Your task to perform on an android device: Show me productivity apps on the Play Store Image 0: 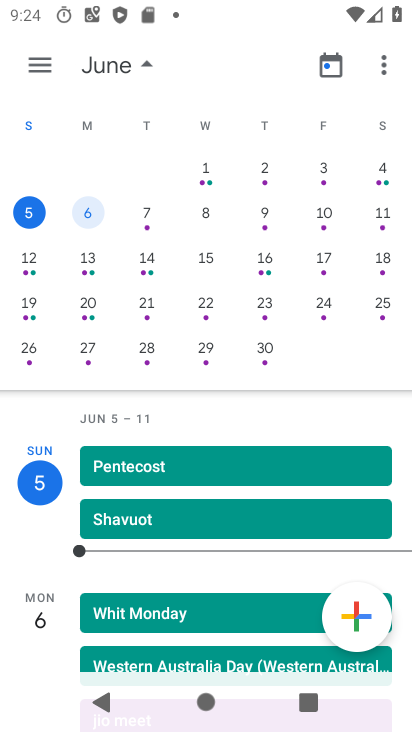
Step 0: press home button
Your task to perform on an android device: Show me productivity apps on the Play Store Image 1: 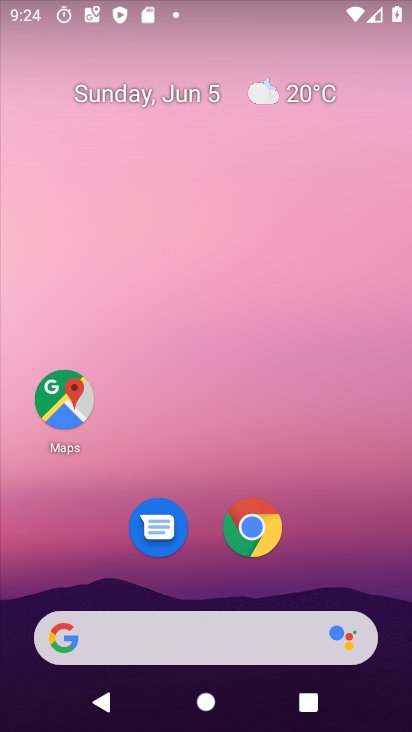
Step 1: drag from (287, 483) to (263, 90)
Your task to perform on an android device: Show me productivity apps on the Play Store Image 2: 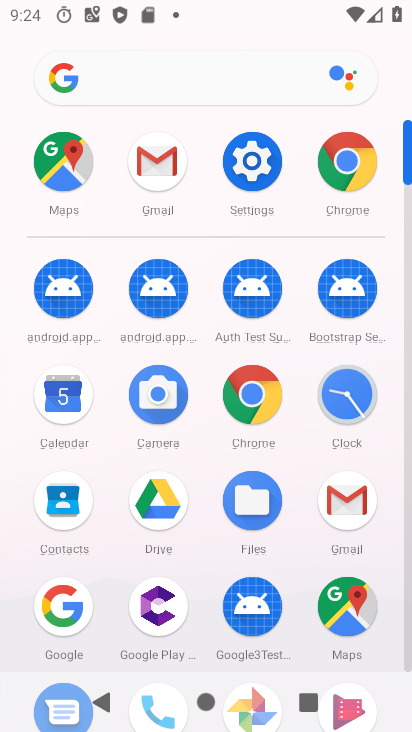
Step 2: drag from (388, 643) to (411, 261)
Your task to perform on an android device: Show me productivity apps on the Play Store Image 3: 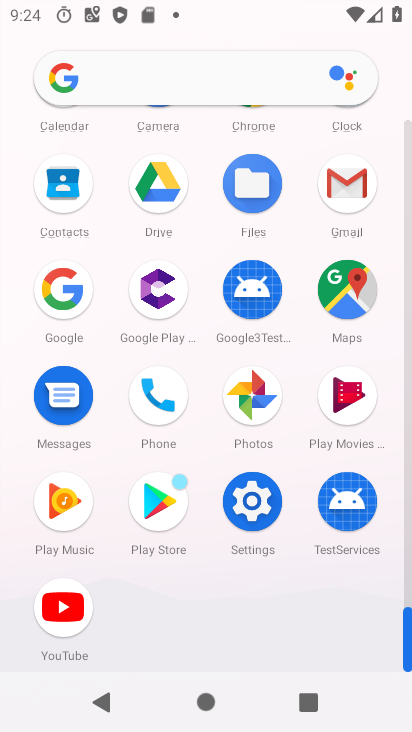
Step 3: click (163, 527)
Your task to perform on an android device: Show me productivity apps on the Play Store Image 4: 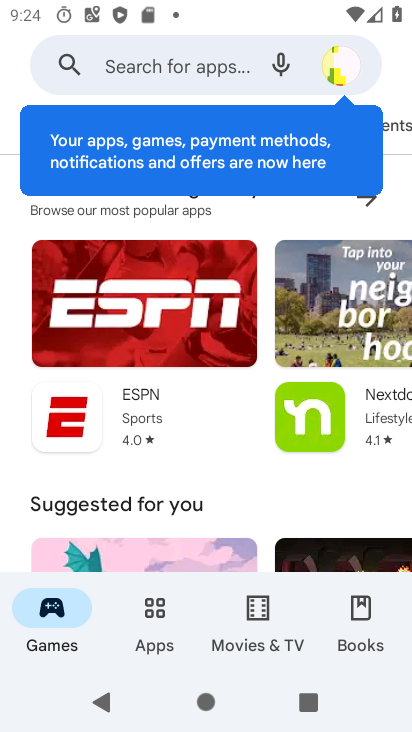
Step 4: click (228, 76)
Your task to perform on an android device: Show me productivity apps on the Play Store Image 5: 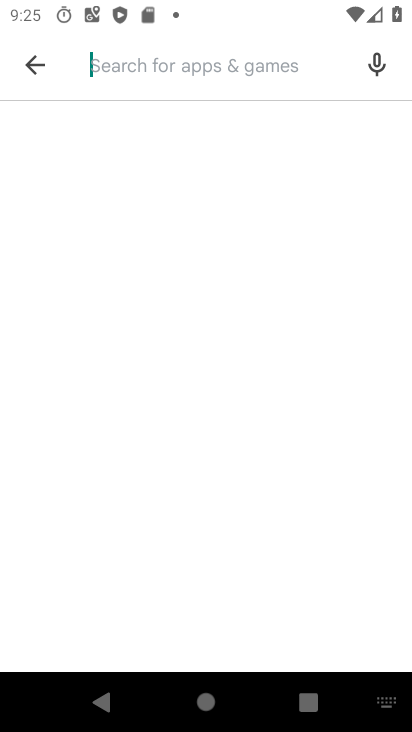
Step 5: type "productivity apss"
Your task to perform on an android device: Show me productivity apps on the Play Store Image 6: 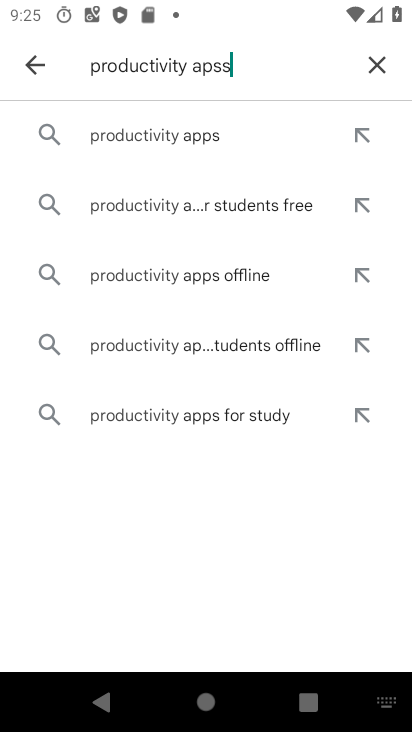
Step 6: click (132, 130)
Your task to perform on an android device: Show me productivity apps on the Play Store Image 7: 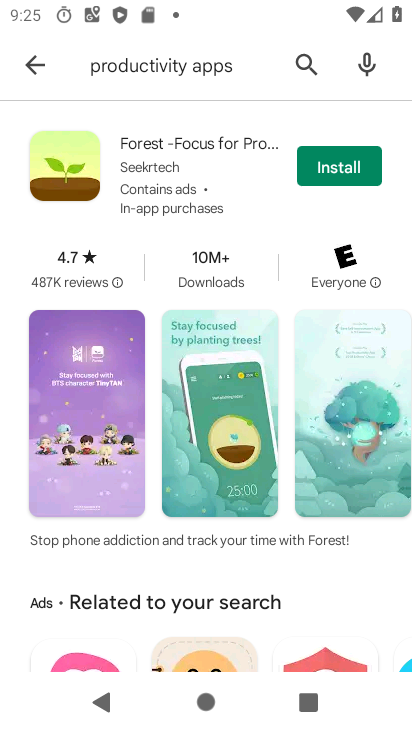
Step 7: task complete